Your task to perform on an android device: Search for pizza restaurants on Maps Image 0: 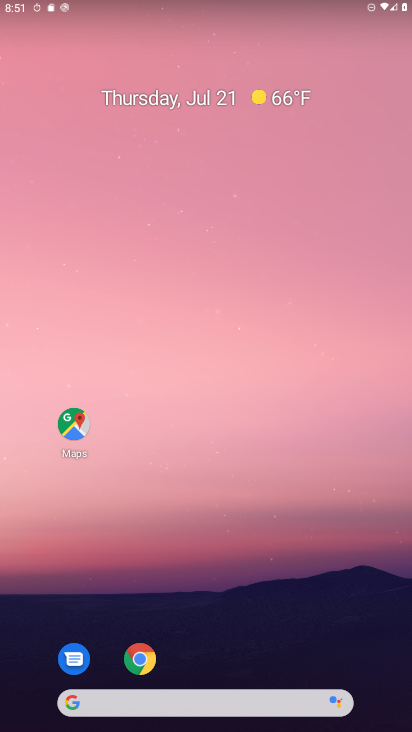
Step 0: drag from (192, 652) to (331, 120)
Your task to perform on an android device: Search for pizza restaurants on Maps Image 1: 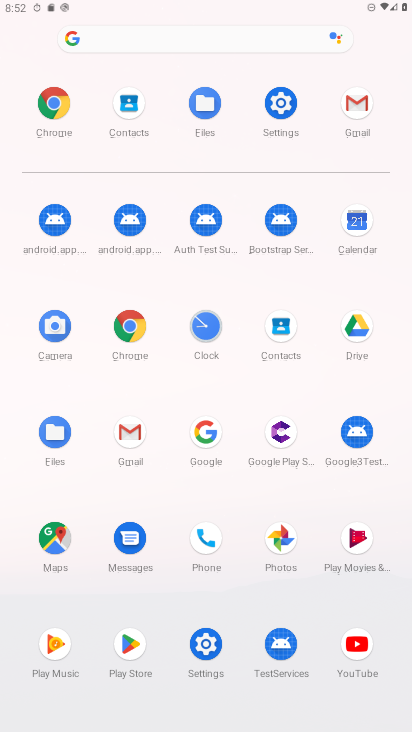
Step 1: click (51, 549)
Your task to perform on an android device: Search for pizza restaurants on Maps Image 2: 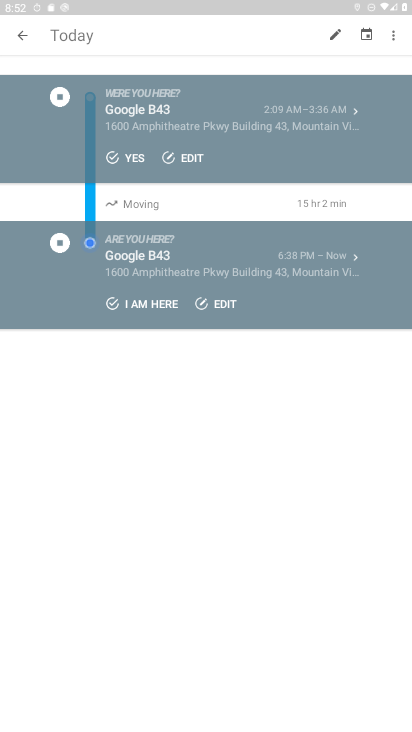
Step 2: click (24, 37)
Your task to perform on an android device: Search for pizza restaurants on Maps Image 3: 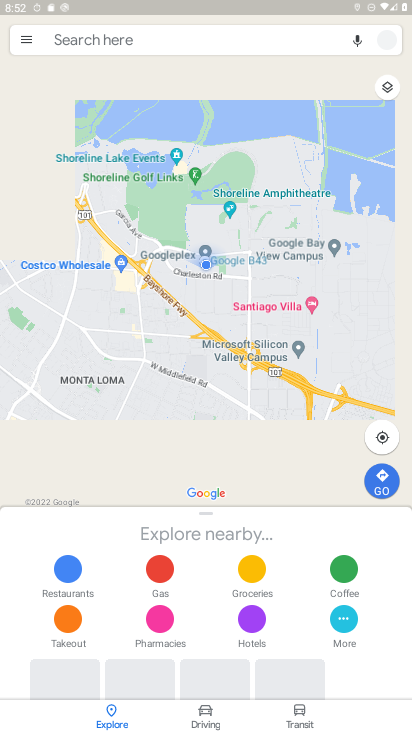
Step 3: click (113, 42)
Your task to perform on an android device: Search for pizza restaurants on Maps Image 4: 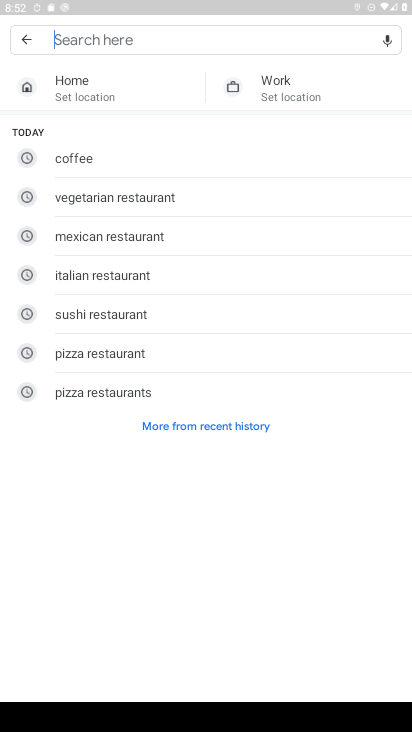
Step 4: click (100, 349)
Your task to perform on an android device: Search for pizza restaurants on Maps Image 5: 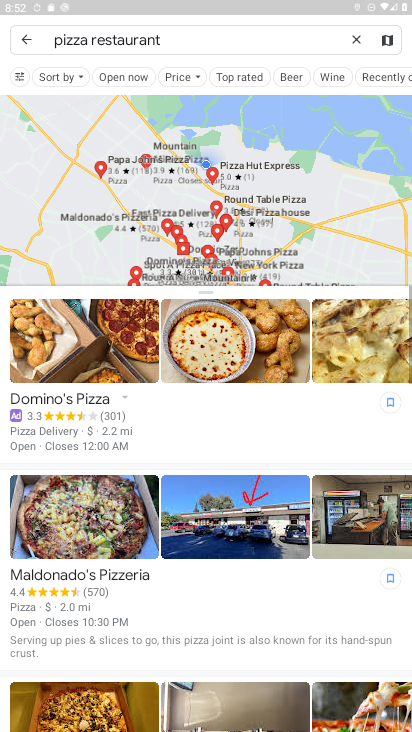
Step 5: task complete